Your task to perform on an android device: change text size in settings app Image 0: 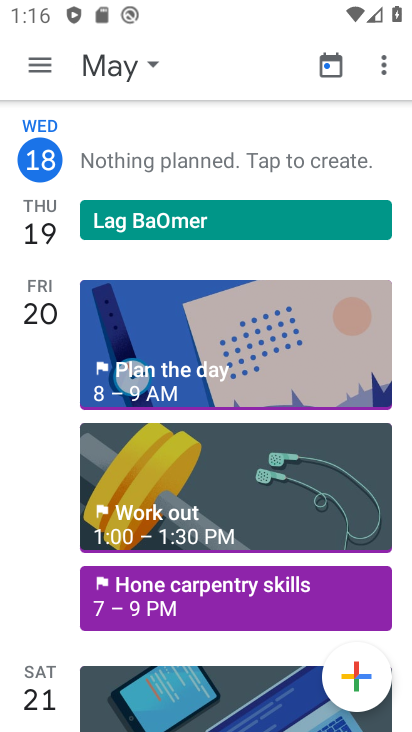
Step 0: press back button
Your task to perform on an android device: change text size in settings app Image 1: 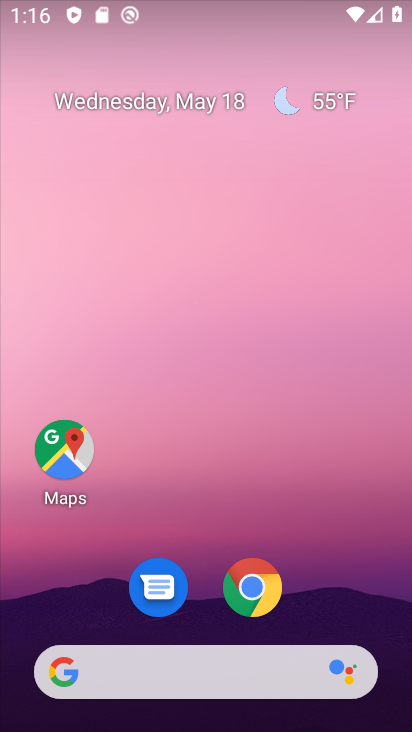
Step 1: drag from (157, 589) to (275, 14)
Your task to perform on an android device: change text size in settings app Image 2: 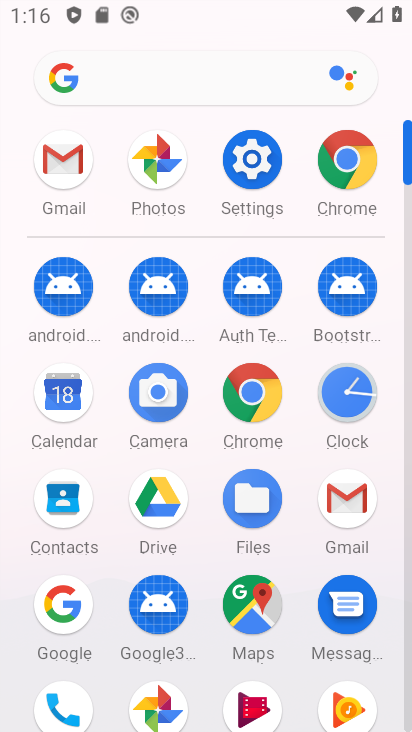
Step 2: click (254, 157)
Your task to perform on an android device: change text size in settings app Image 3: 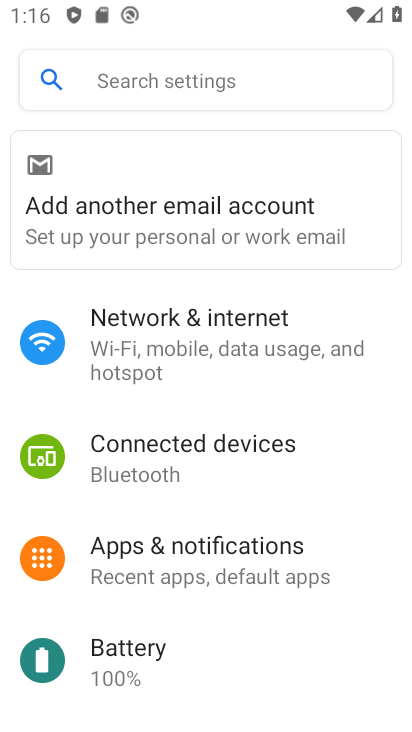
Step 3: click (120, 77)
Your task to perform on an android device: change text size in settings app Image 4: 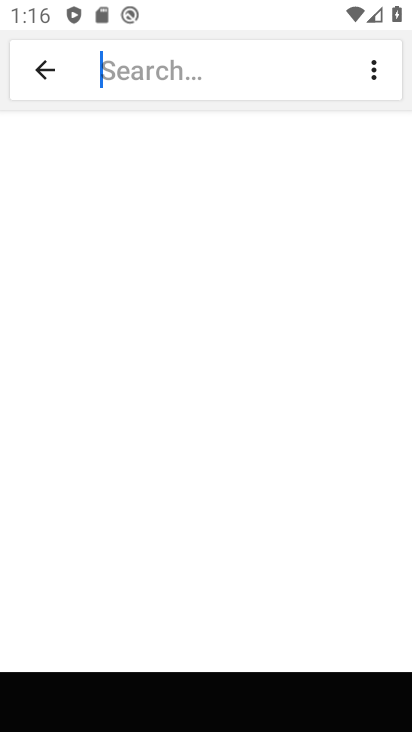
Step 4: click (117, 73)
Your task to perform on an android device: change text size in settings app Image 5: 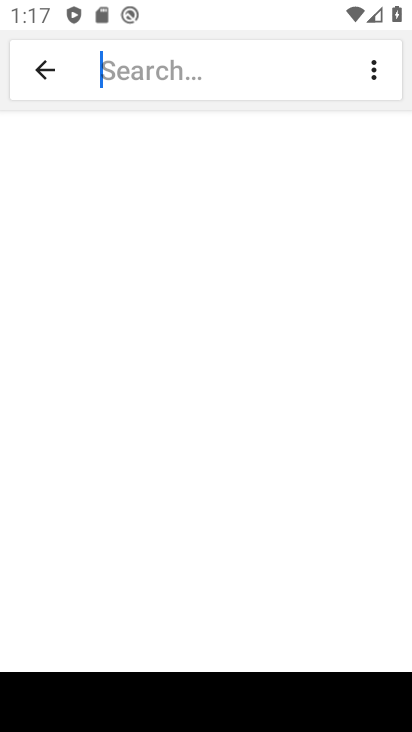
Step 5: type "text size"
Your task to perform on an android device: change text size in settings app Image 6: 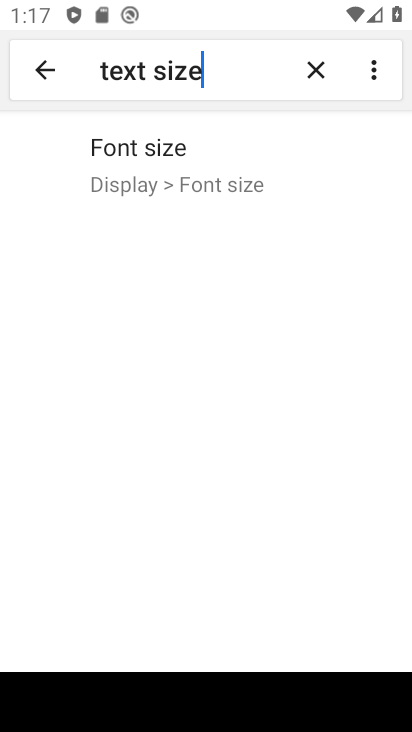
Step 6: click (131, 152)
Your task to perform on an android device: change text size in settings app Image 7: 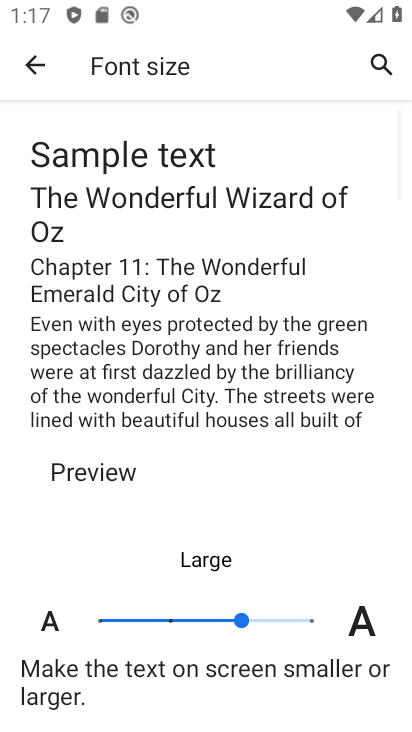
Step 7: task complete